Your task to perform on an android device: create a new album in the google photos Image 0: 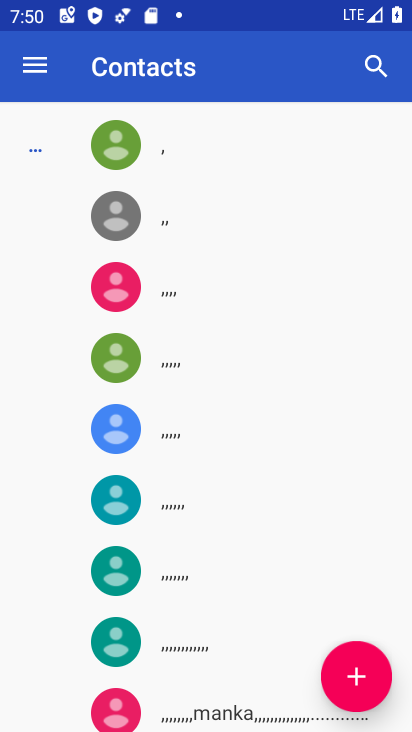
Step 0: press home button
Your task to perform on an android device: create a new album in the google photos Image 1: 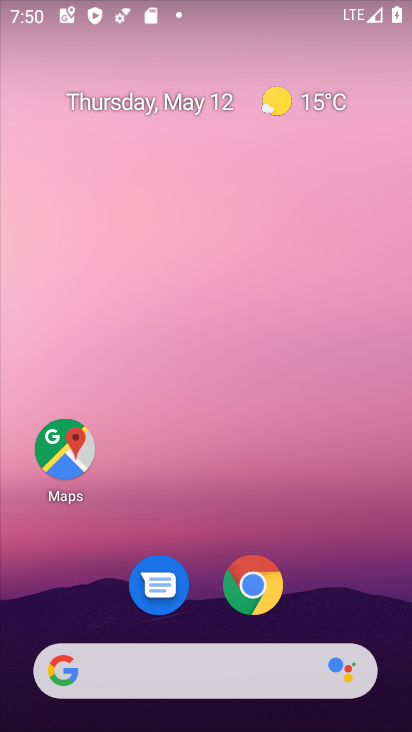
Step 1: drag from (187, 480) to (194, 48)
Your task to perform on an android device: create a new album in the google photos Image 2: 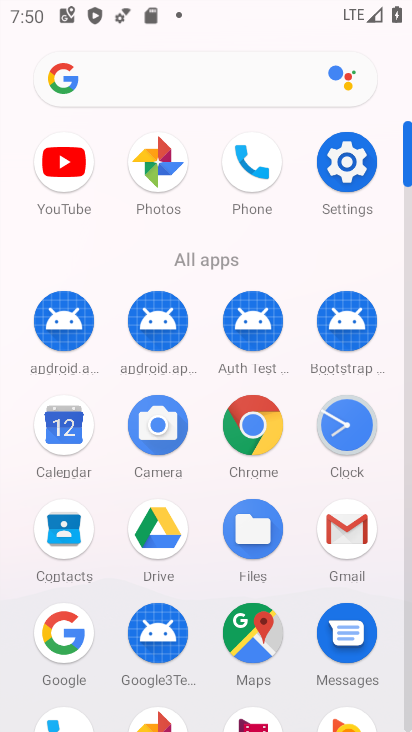
Step 2: click (150, 153)
Your task to perform on an android device: create a new album in the google photos Image 3: 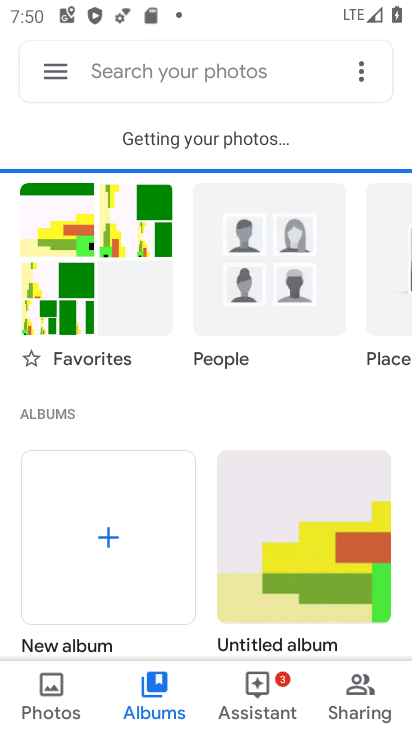
Step 3: click (157, 694)
Your task to perform on an android device: create a new album in the google photos Image 4: 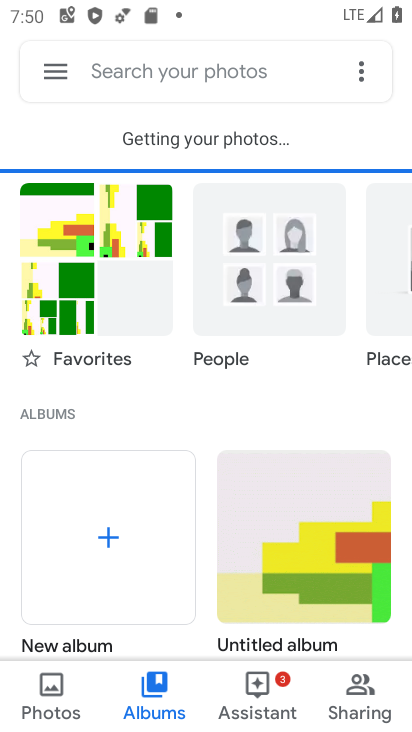
Step 4: click (362, 72)
Your task to perform on an android device: create a new album in the google photos Image 5: 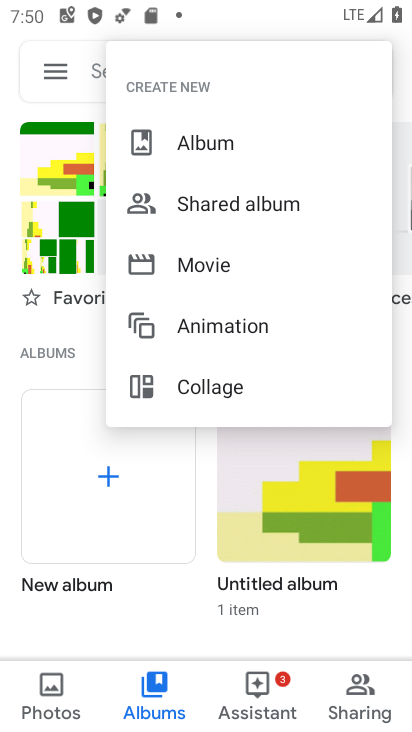
Step 5: click (296, 136)
Your task to perform on an android device: create a new album in the google photos Image 6: 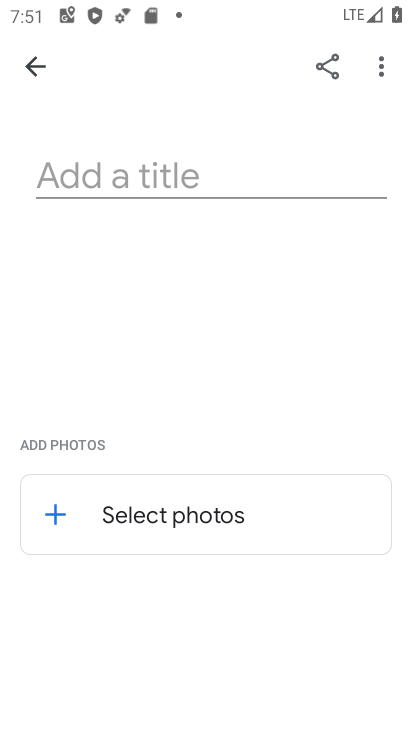
Step 6: click (164, 166)
Your task to perform on an android device: create a new album in the google photos Image 7: 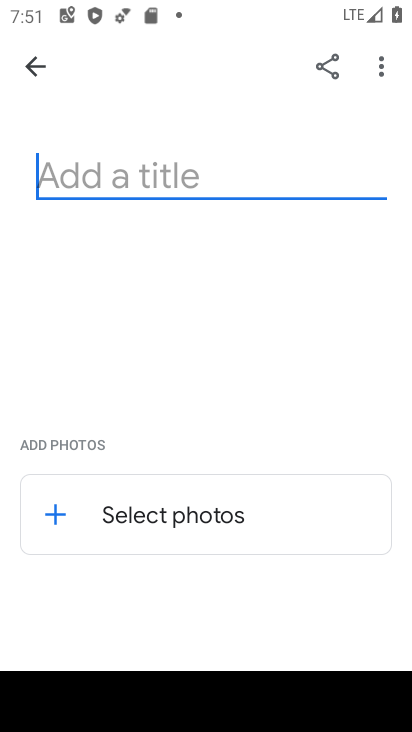
Step 7: type "Kedarnath Badrinath"
Your task to perform on an android device: create a new album in the google photos Image 8: 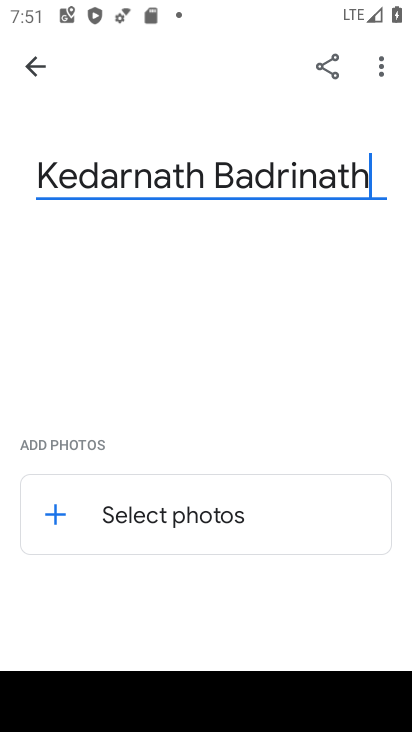
Step 8: click (61, 515)
Your task to perform on an android device: create a new album in the google photos Image 9: 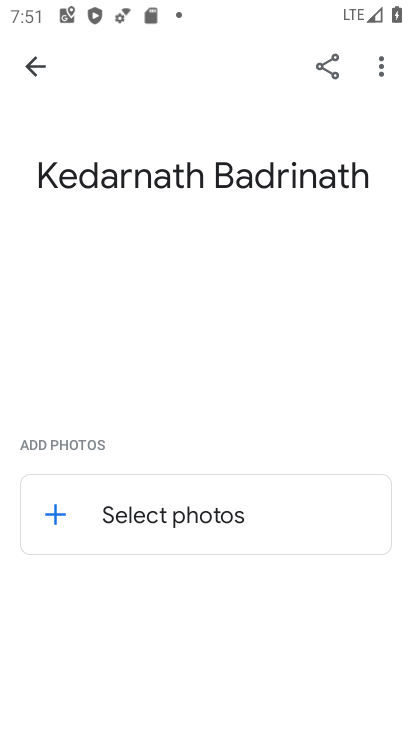
Step 9: click (61, 504)
Your task to perform on an android device: create a new album in the google photos Image 10: 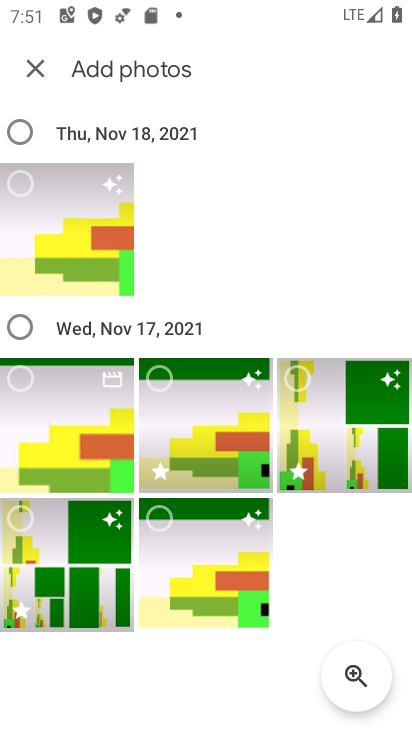
Step 10: click (23, 374)
Your task to perform on an android device: create a new album in the google photos Image 11: 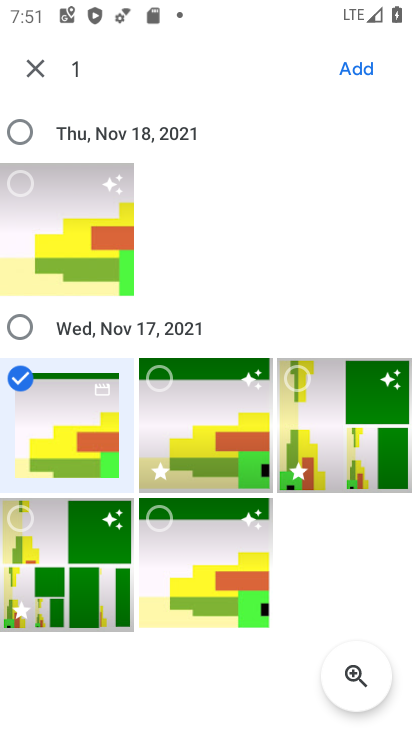
Step 11: click (364, 65)
Your task to perform on an android device: create a new album in the google photos Image 12: 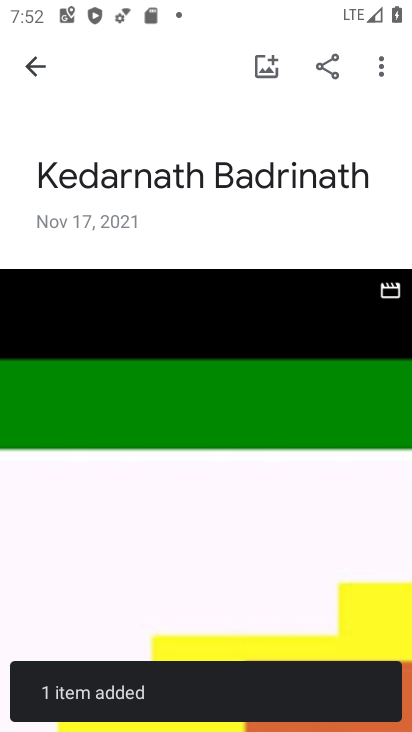
Step 12: task complete